Your task to perform on an android device: make emails show in primary in the gmail app Image 0: 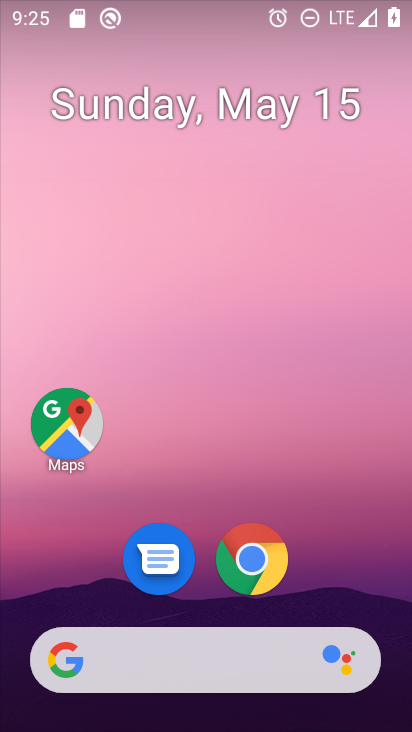
Step 0: drag from (369, 561) to (346, 156)
Your task to perform on an android device: make emails show in primary in the gmail app Image 1: 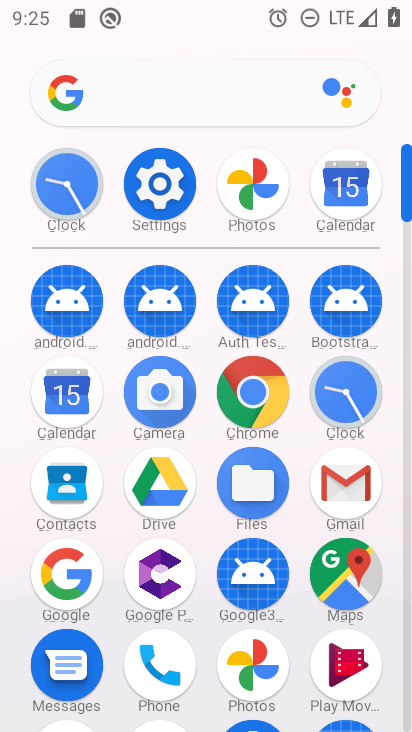
Step 1: click (335, 500)
Your task to perform on an android device: make emails show in primary in the gmail app Image 2: 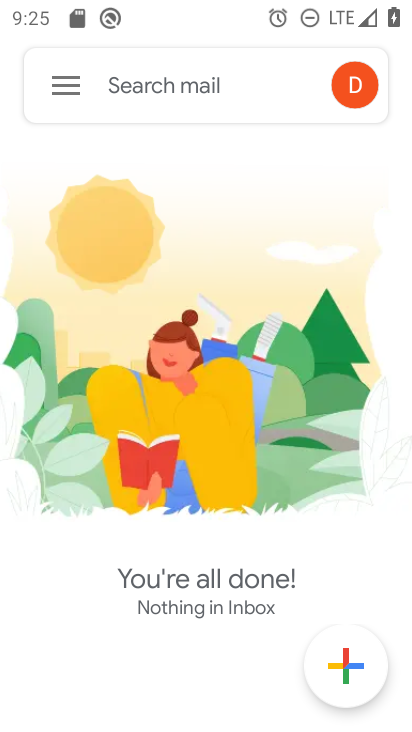
Step 2: click (70, 91)
Your task to perform on an android device: make emails show in primary in the gmail app Image 3: 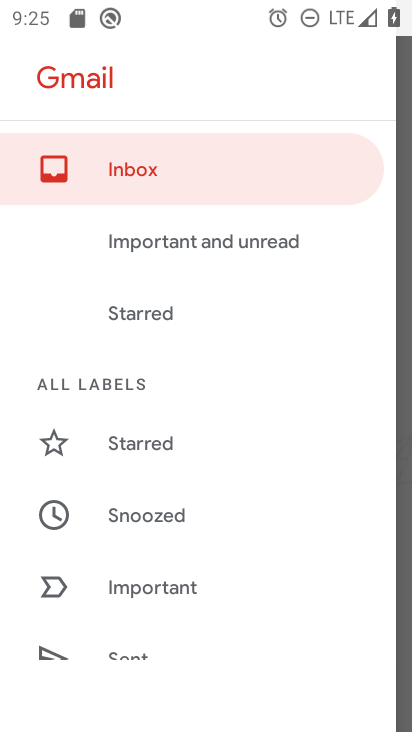
Step 3: drag from (175, 663) to (163, 268)
Your task to perform on an android device: make emails show in primary in the gmail app Image 4: 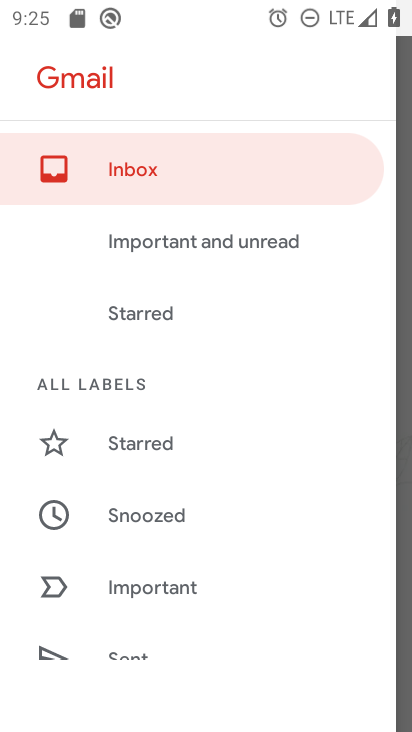
Step 4: drag from (170, 615) to (179, 485)
Your task to perform on an android device: make emails show in primary in the gmail app Image 5: 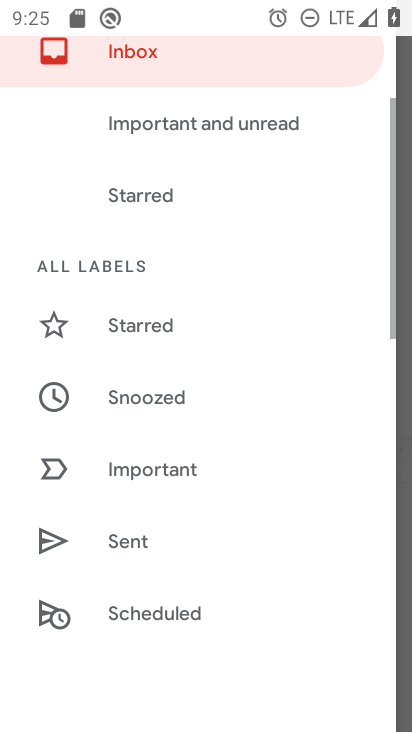
Step 5: drag from (246, 554) to (251, 151)
Your task to perform on an android device: make emails show in primary in the gmail app Image 6: 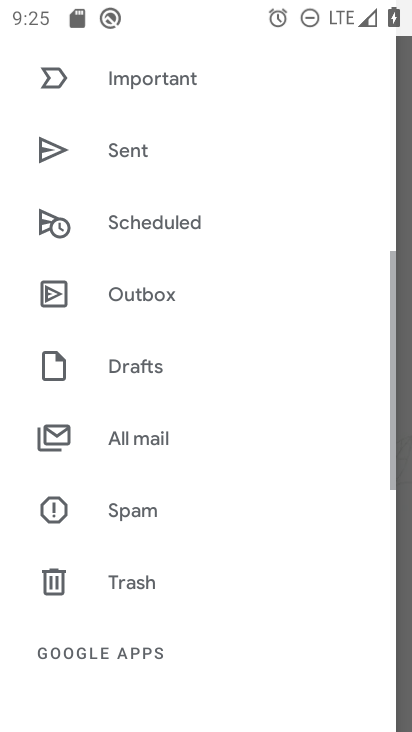
Step 6: drag from (211, 599) to (259, 159)
Your task to perform on an android device: make emails show in primary in the gmail app Image 7: 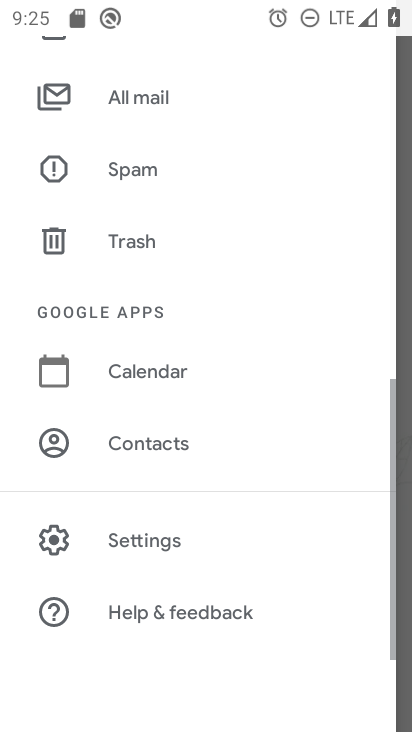
Step 7: click (223, 543)
Your task to perform on an android device: make emails show in primary in the gmail app Image 8: 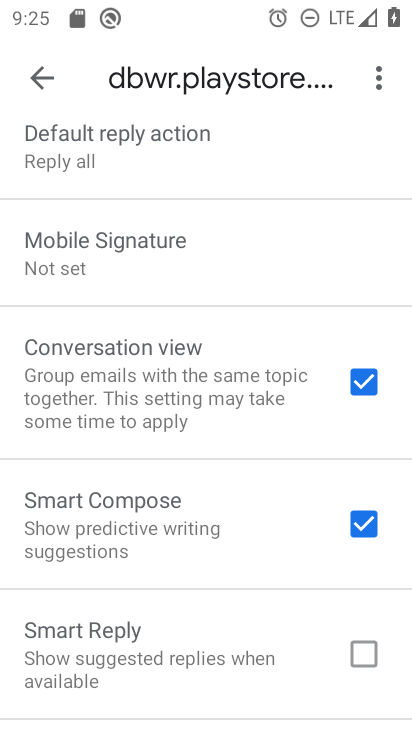
Step 8: task complete